Your task to perform on an android device: Go to wifi settings Image 0: 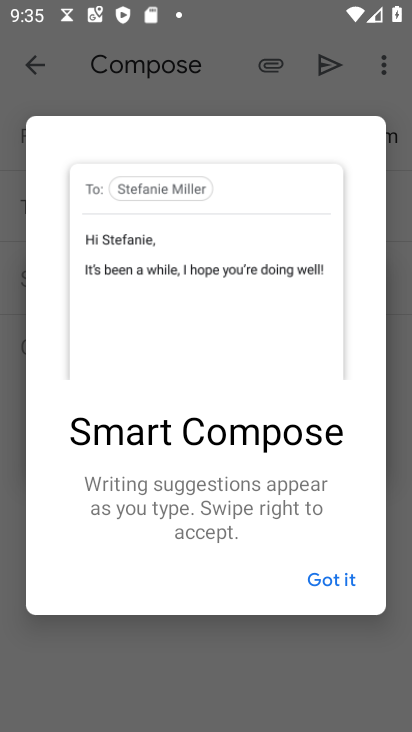
Step 0: press home button
Your task to perform on an android device: Go to wifi settings Image 1: 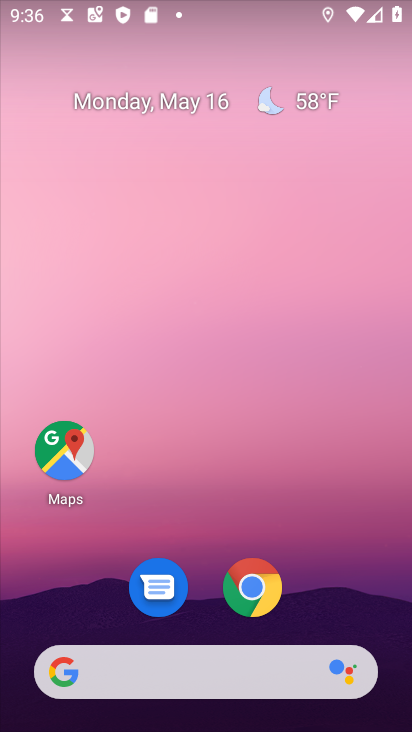
Step 1: drag from (324, 614) to (246, 154)
Your task to perform on an android device: Go to wifi settings Image 2: 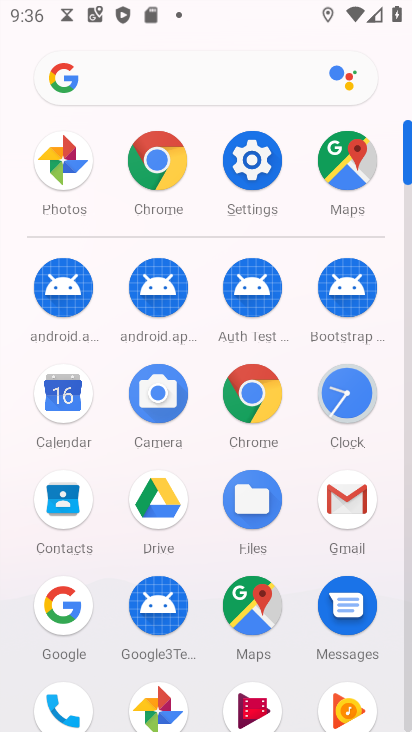
Step 2: click (261, 170)
Your task to perform on an android device: Go to wifi settings Image 3: 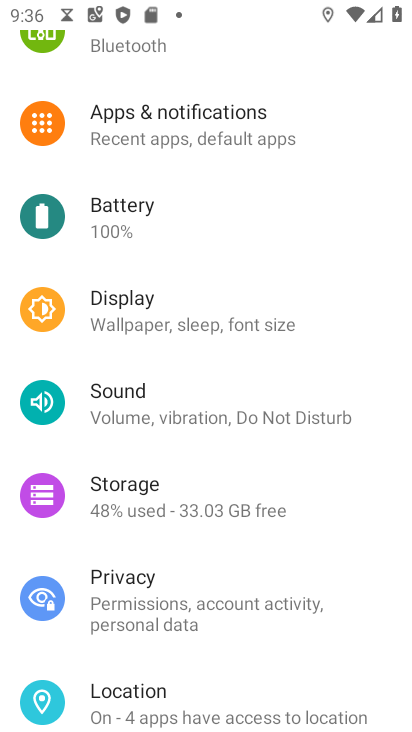
Step 3: drag from (237, 118) to (218, 520)
Your task to perform on an android device: Go to wifi settings Image 4: 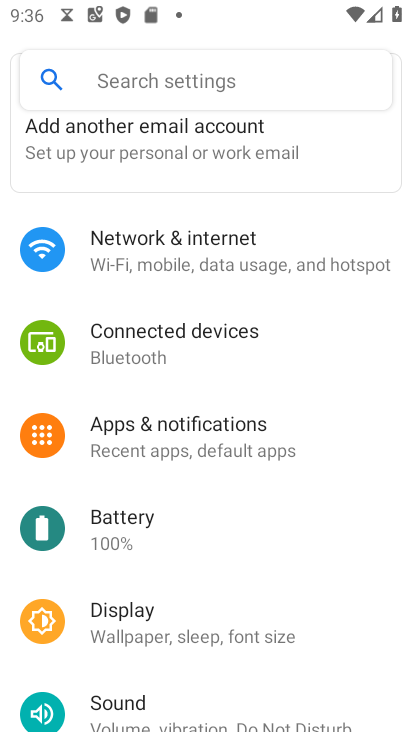
Step 4: click (190, 257)
Your task to perform on an android device: Go to wifi settings Image 5: 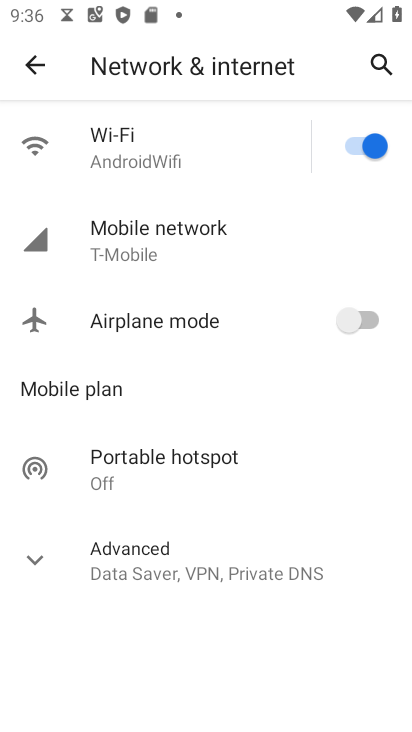
Step 5: click (196, 163)
Your task to perform on an android device: Go to wifi settings Image 6: 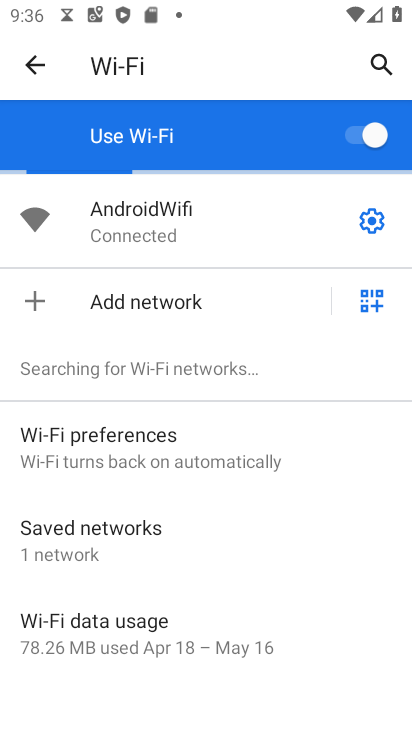
Step 6: task complete